Your task to perform on an android device: turn on translation in the chrome app Image 0: 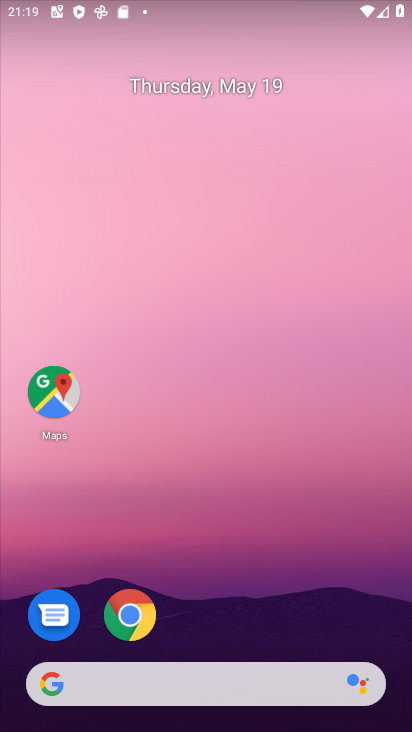
Step 0: click (132, 611)
Your task to perform on an android device: turn on translation in the chrome app Image 1: 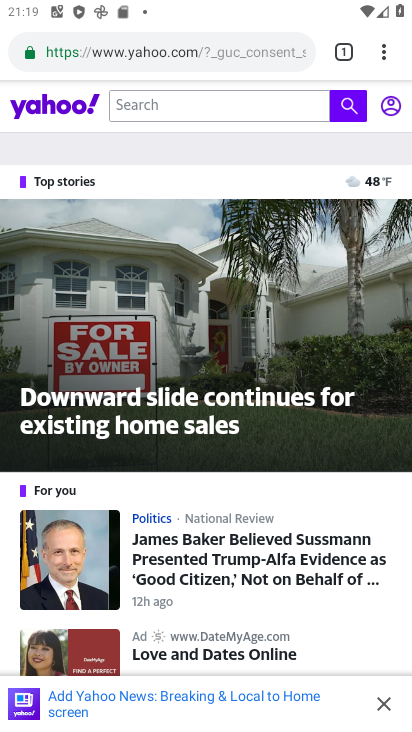
Step 1: click (377, 52)
Your task to perform on an android device: turn on translation in the chrome app Image 2: 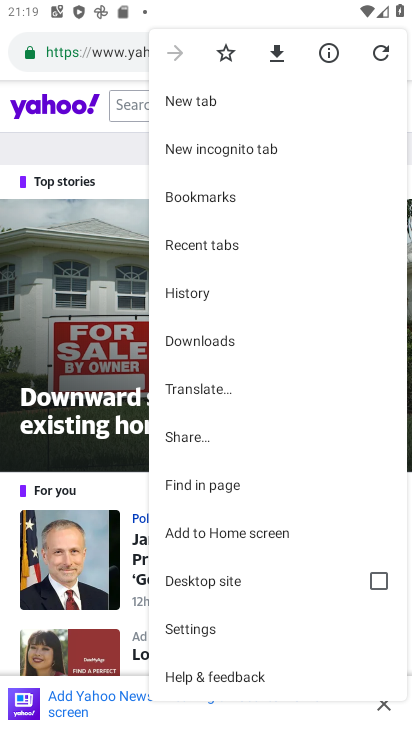
Step 2: click (188, 632)
Your task to perform on an android device: turn on translation in the chrome app Image 3: 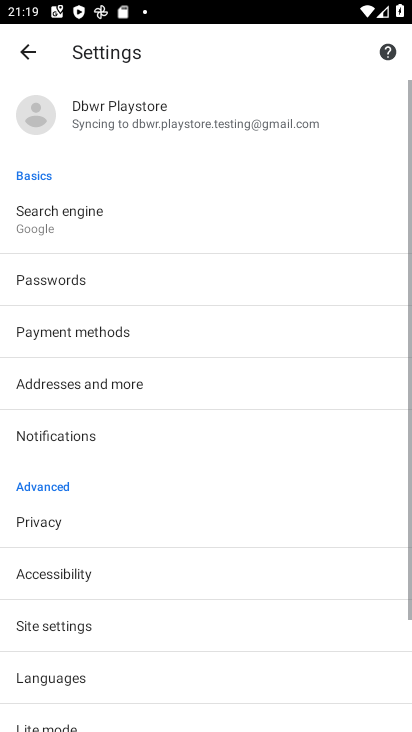
Step 3: drag from (188, 632) to (160, 359)
Your task to perform on an android device: turn on translation in the chrome app Image 4: 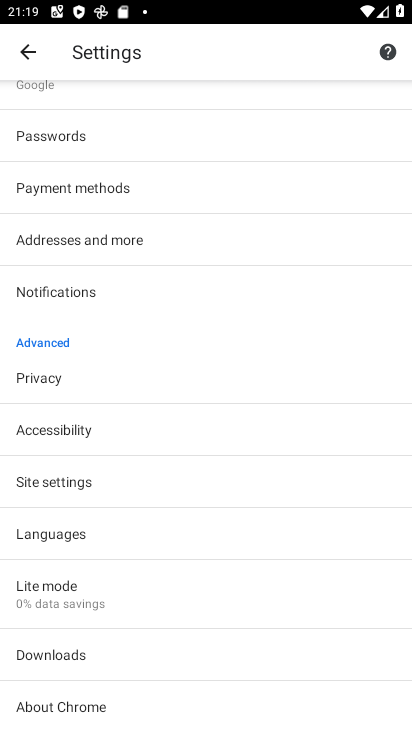
Step 4: click (57, 538)
Your task to perform on an android device: turn on translation in the chrome app Image 5: 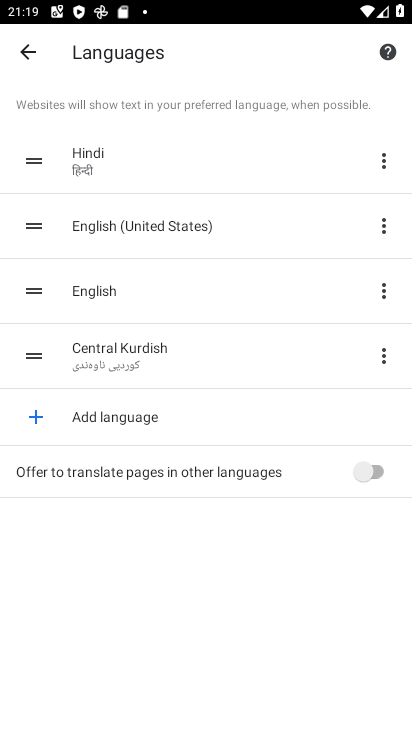
Step 5: click (376, 472)
Your task to perform on an android device: turn on translation in the chrome app Image 6: 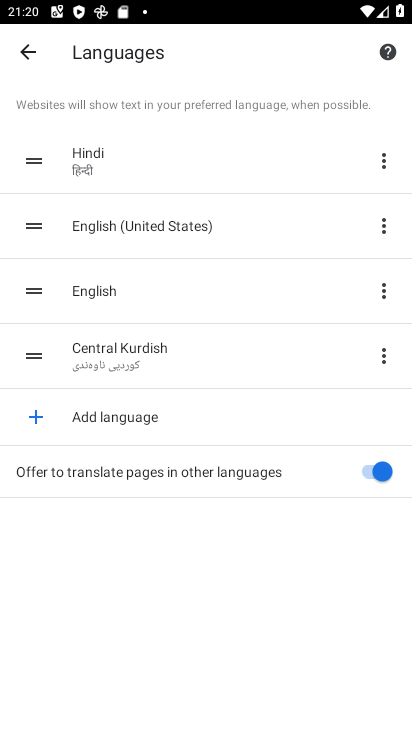
Step 6: task complete